Your task to perform on an android device: Show me popular videos on Youtube Image 0: 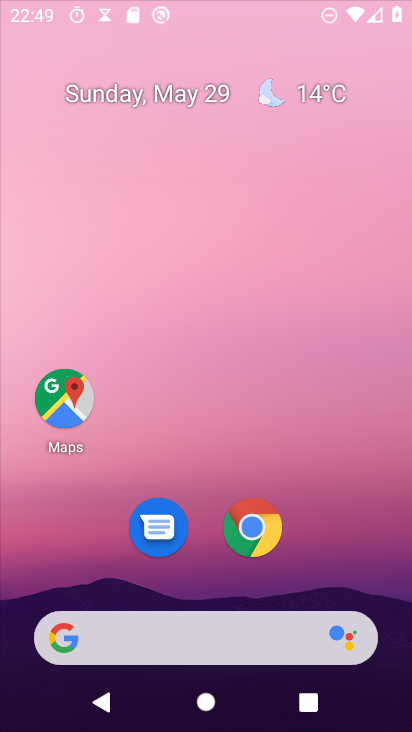
Step 0: press home button
Your task to perform on an android device: Show me popular videos on Youtube Image 1: 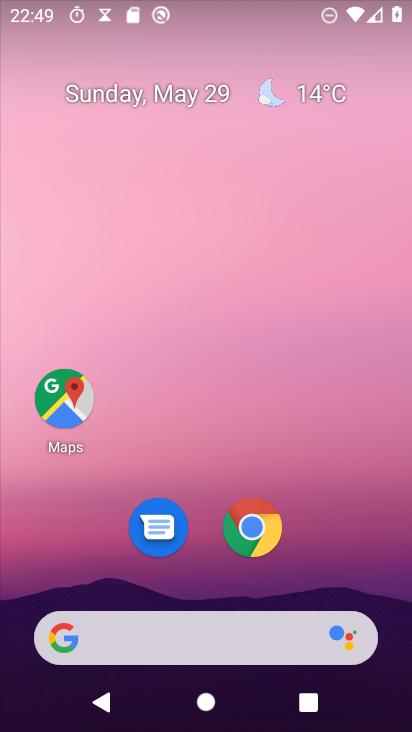
Step 1: drag from (176, 633) to (344, 9)
Your task to perform on an android device: Show me popular videos on Youtube Image 2: 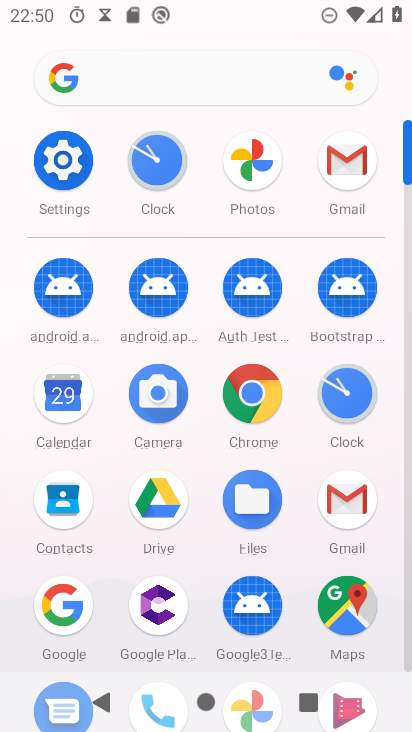
Step 2: drag from (205, 625) to (319, 75)
Your task to perform on an android device: Show me popular videos on Youtube Image 3: 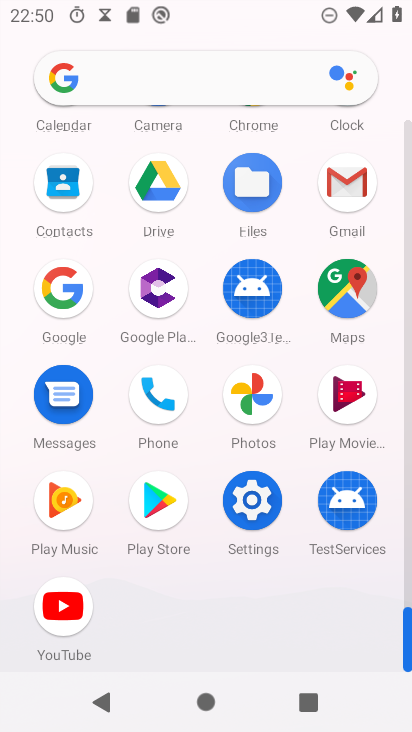
Step 3: click (72, 614)
Your task to perform on an android device: Show me popular videos on Youtube Image 4: 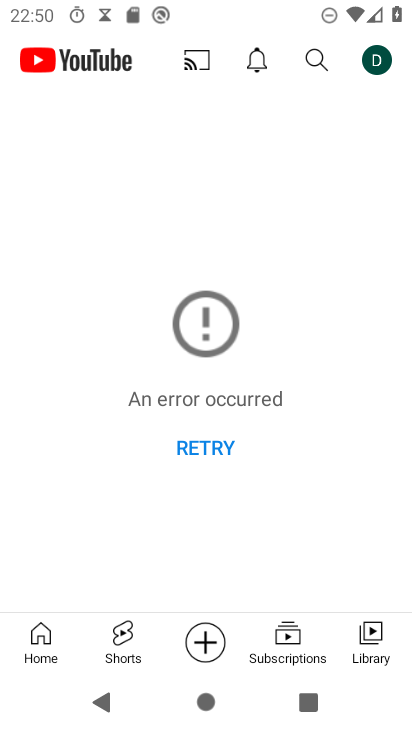
Step 4: click (212, 445)
Your task to perform on an android device: Show me popular videos on Youtube Image 5: 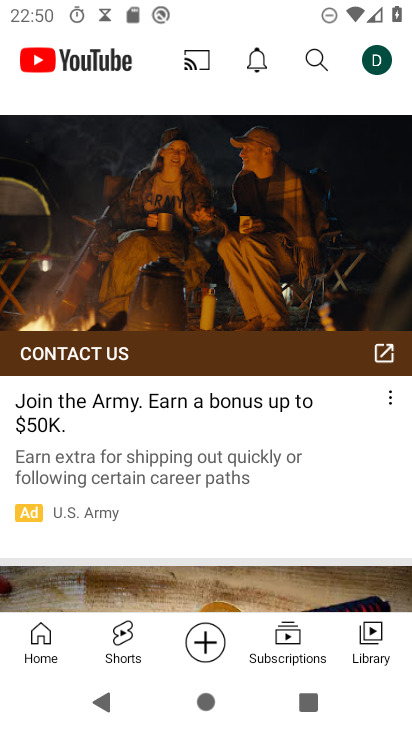
Step 5: task complete